Your task to perform on an android device: toggle sleep mode Image 0: 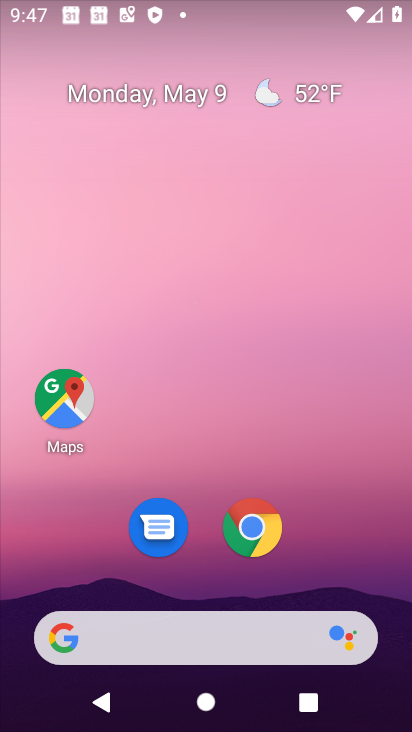
Step 0: drag from (215, 569) to (211, 32)
Your task to perform on an android device: toggle sleep mode Image 1: 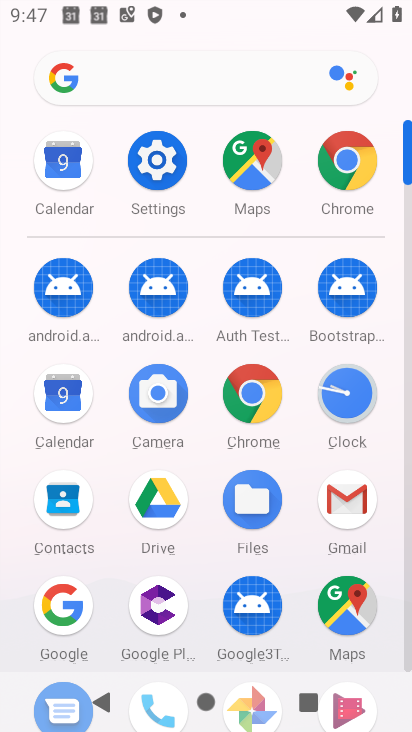
Step 1: click (163, 159)
Your task to perform on an android device: toggle sleep mode Image 2: 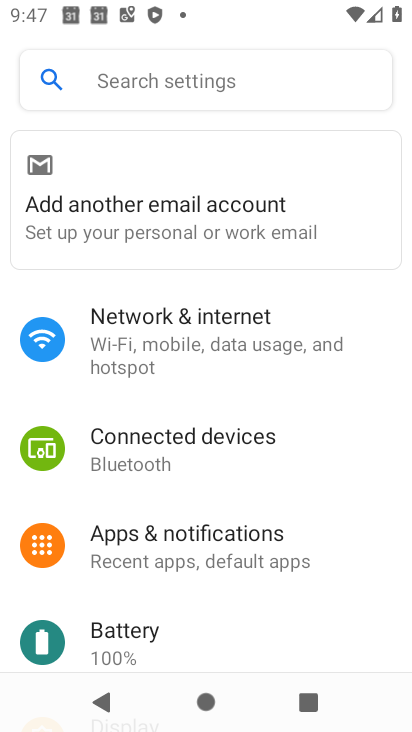
Step 2: drag from (171, 335) to (171, 49)
Your task to perform on an android device: toggle sleep mode Image 3: 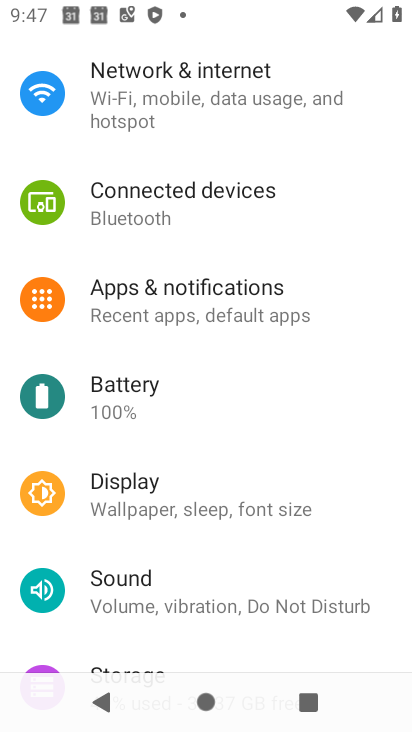
Step 3: click (163, 510)
Your task to perform on an android device: toggle sleep mode Image 4: 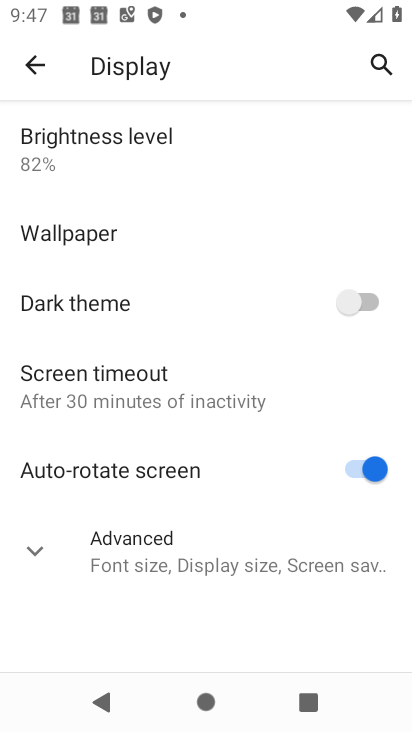
Step 4: click (124, 415)
Your task to perform on an android device: toggle sleep mode Image 5: 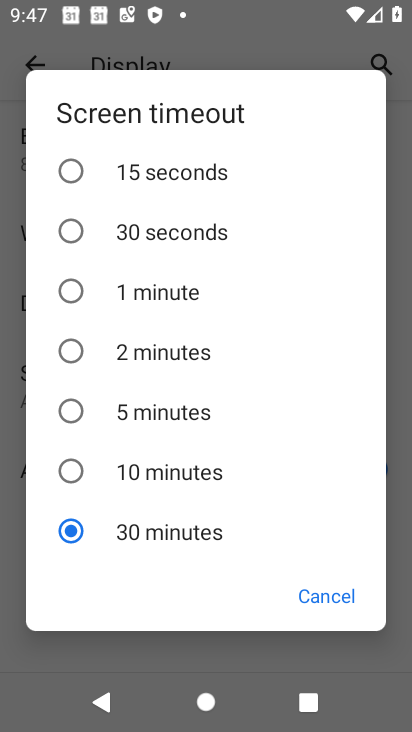
Step 5: click (81, 413)
Your task to perform on an android device: toggle sleep mode Image 6: 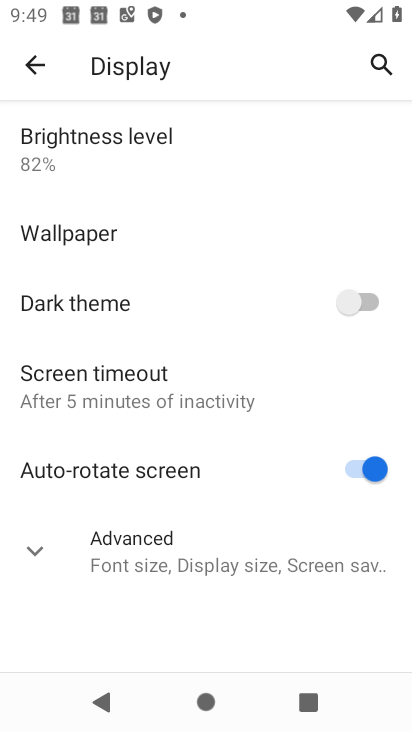
Step 6: task complete